Your task to perform on an android device: Open ESPN.com Image 0: 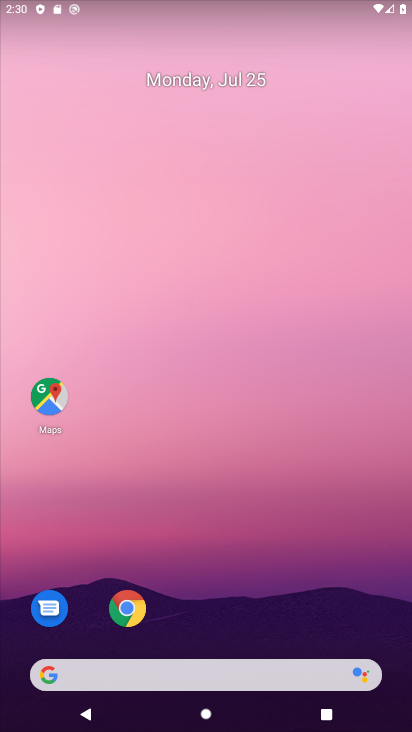
Step 0: click (131, 605)
Your task to perform on an android device: Open ESPN.com Image 1: 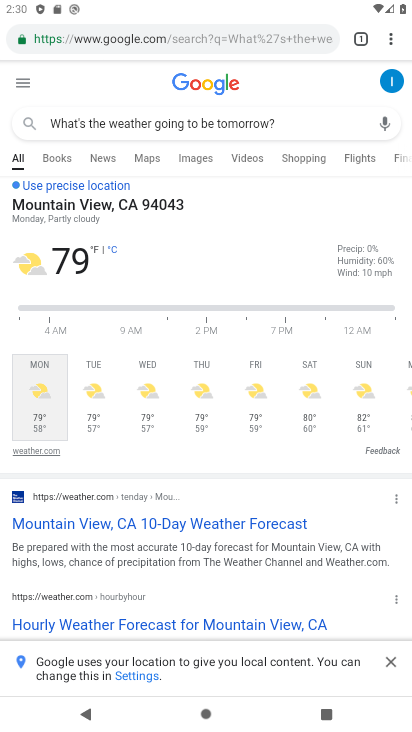
Step 1: click (360, 32)
Your task to perform on an android device: Open ESPN.com Image 2: 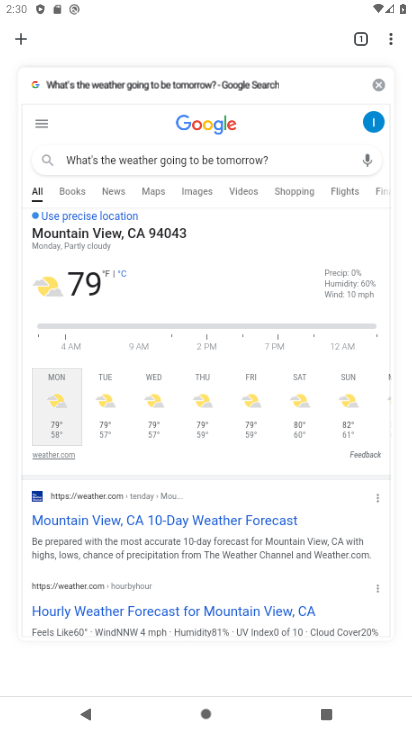
Step 2: click (17, 43)
Your task to perform on an android device: Open ESPN.com Image 3: 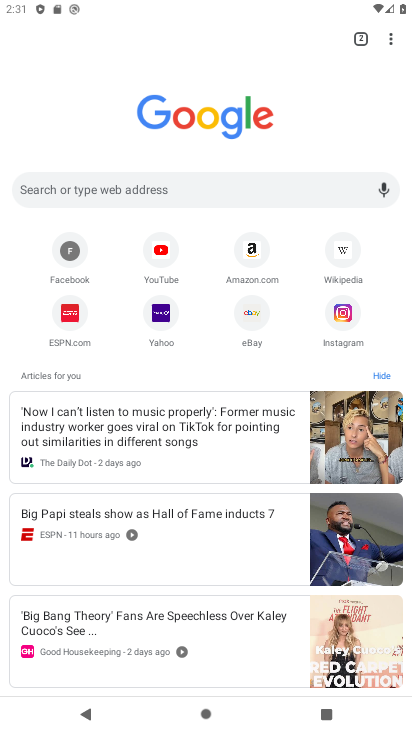
Step 3: click (71, 314)
Your task to perform on an android device: Open ESPN.com Image 4: 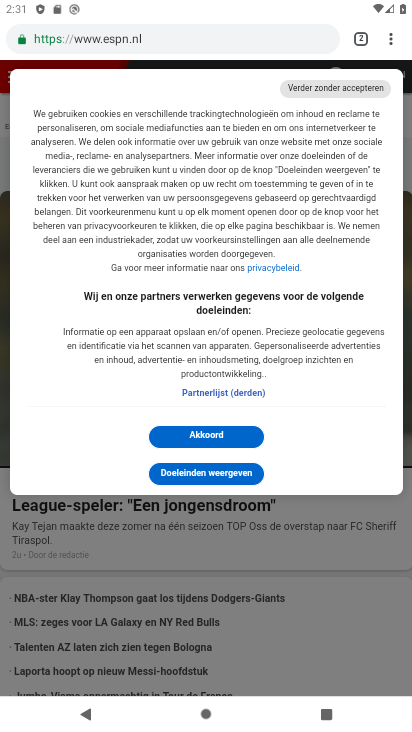
Step 4: task complete